Your task to perform on an android device: uninstall "Google Find My Device" Image 0: 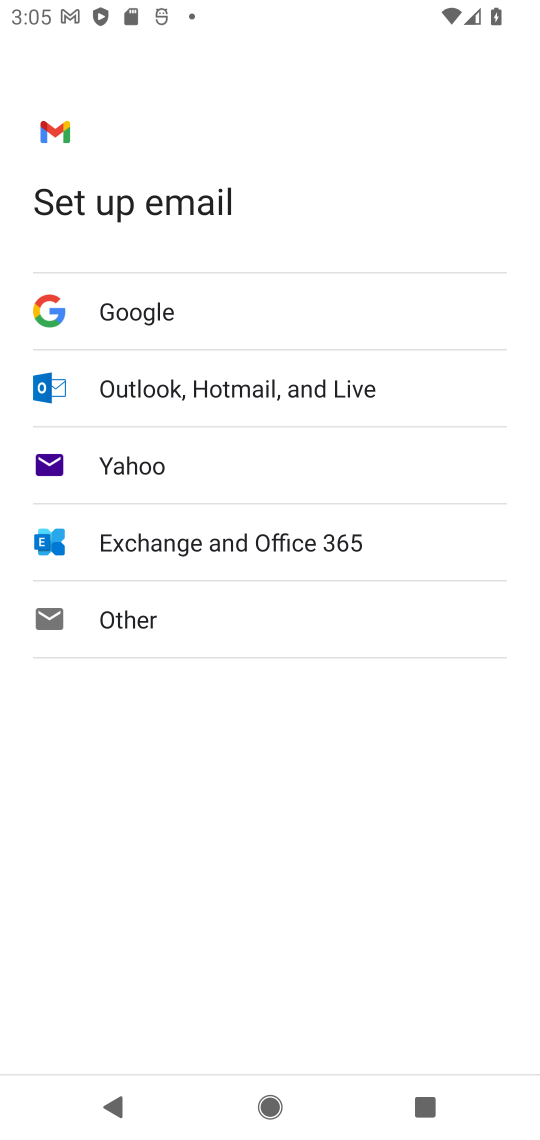
Step 0: press home button
Your task to perform on an android device: uninstall "Google Find My Device" Image 1: 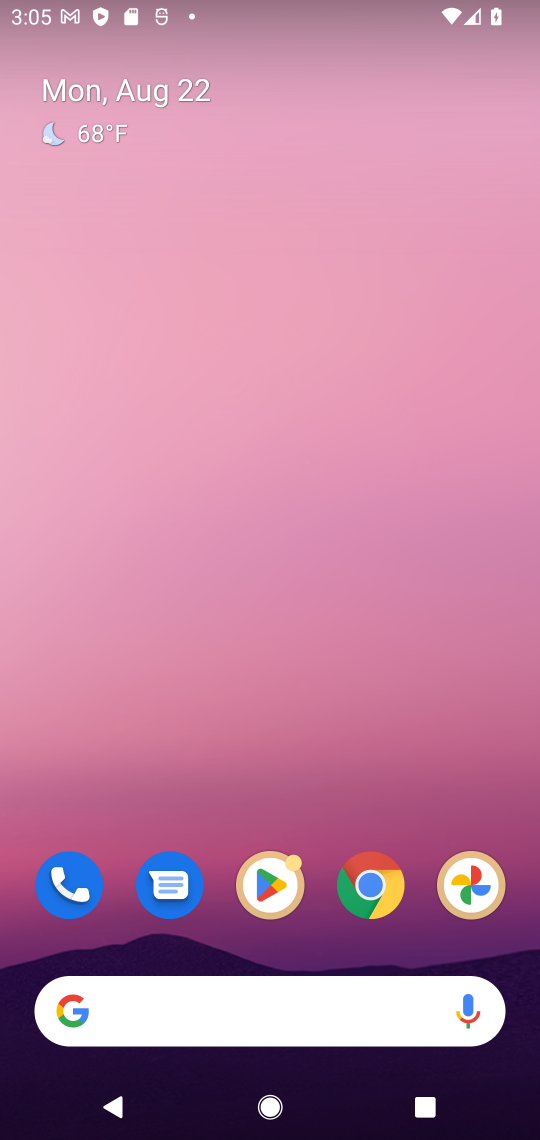
Step 1: click (261, 873)
Your task to perform on an android device: uninstall "Google Find My Device" Image 2: 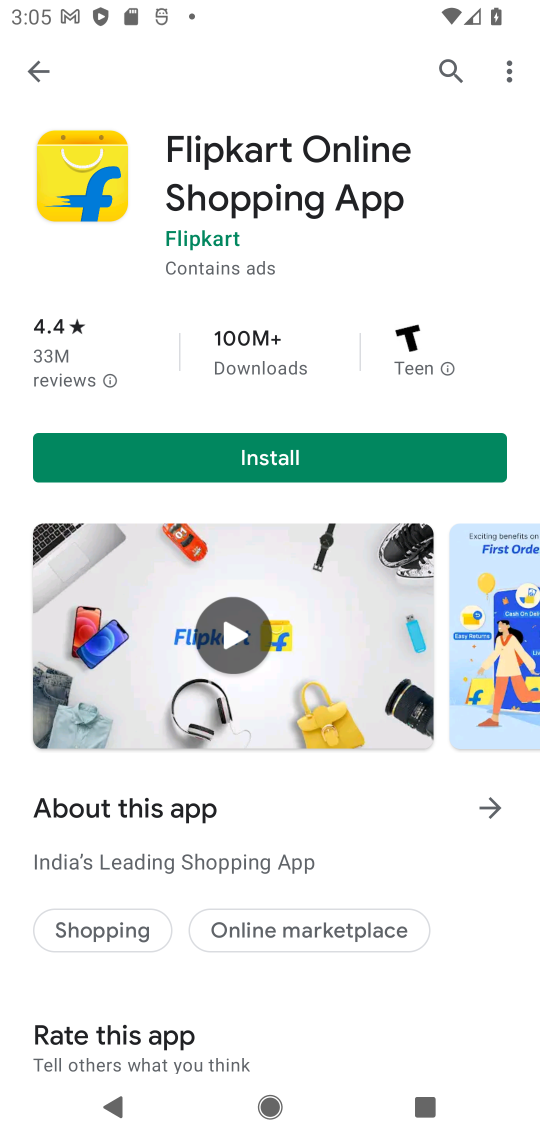
Step 2: click (448, 33)
Your task to perform on an android device: uninstall "Google Find My Device" Image 3: 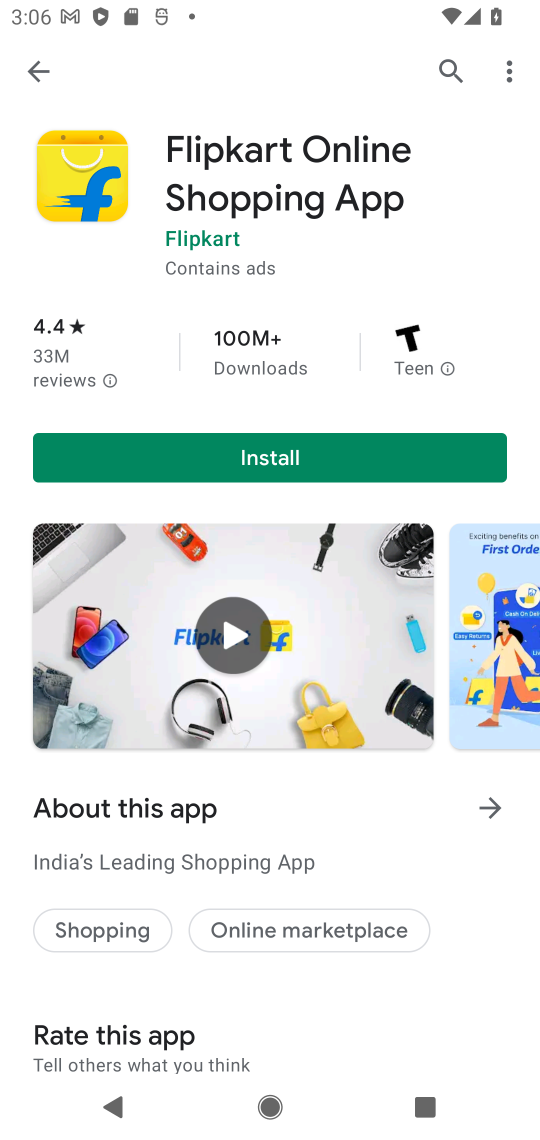
Step 3: click (446, 68)
Your task to perform on an android device: uninstall "Google Find My Device" Image 4: 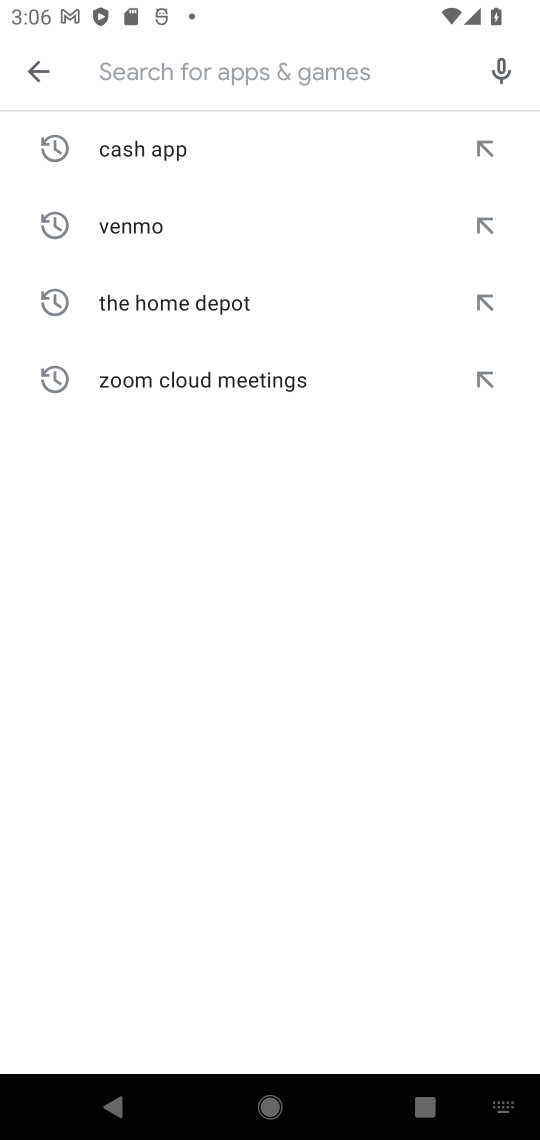
Step 4: type "Google Find My Device"
Your task to perform on an android device: uninstall "Google Find My Device" Image 5: 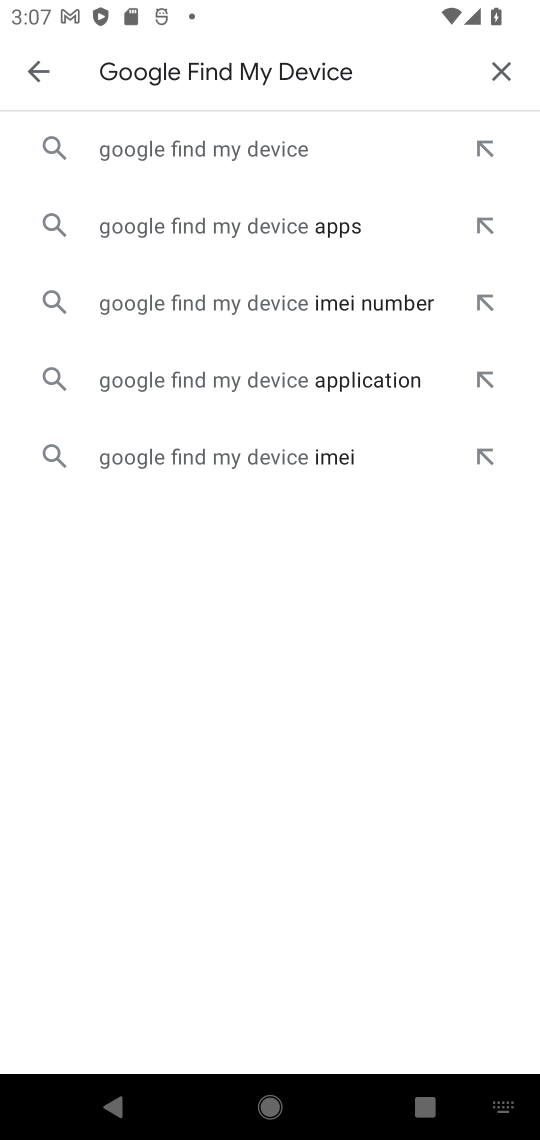
Step 5: click (219, 150)
Your task to perform on an android device: uninstall "Google Find My Device" Image 6: 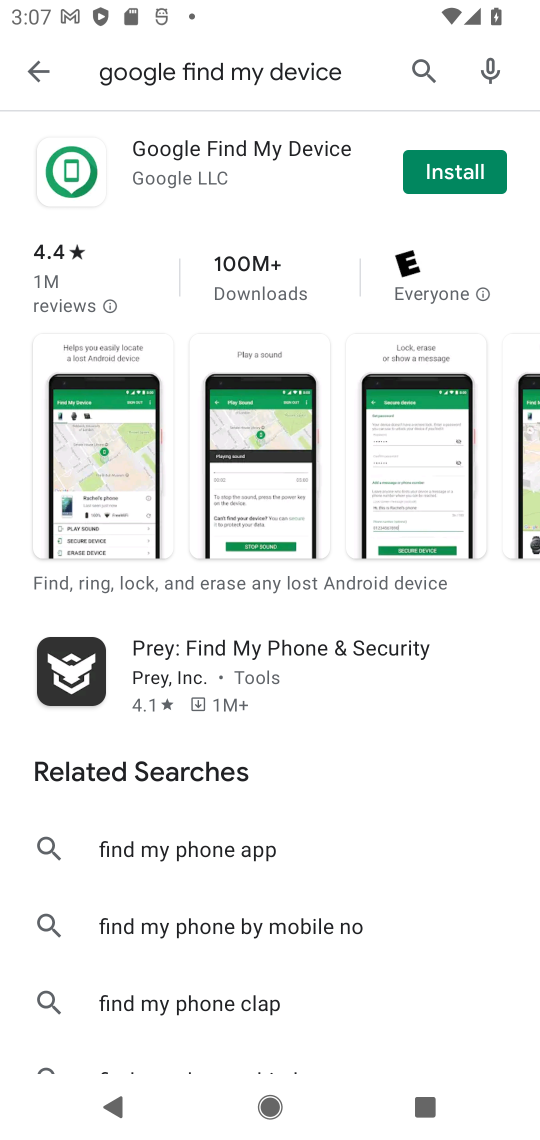
Step 6: task complete